Your task to perform on an android device: show emergency info Image 0: 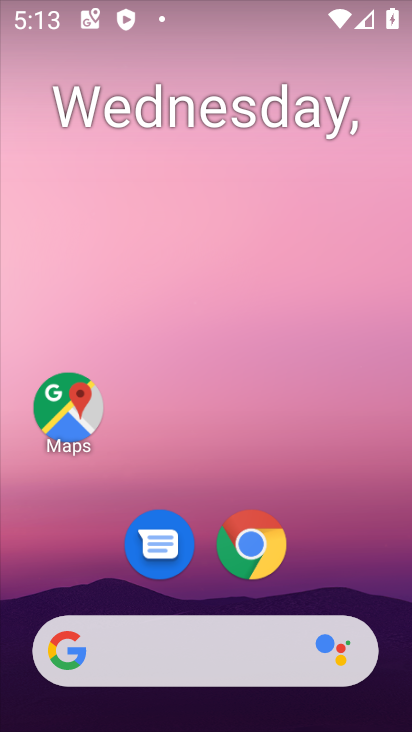
Step 0: drag from (382, 695) to (372, 96)
Your task to perform on an android device: show emergency info Image 1: 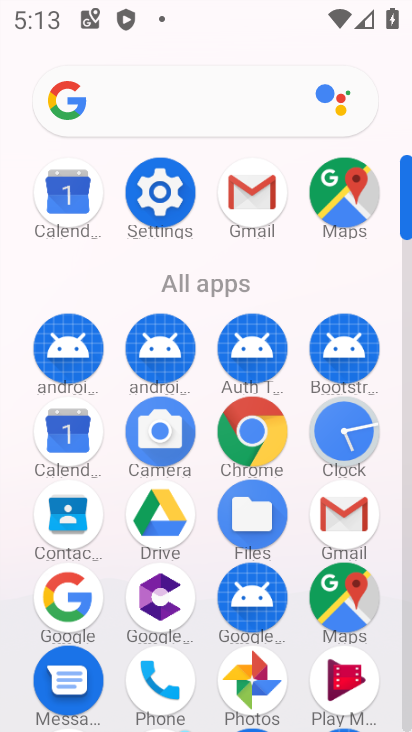
Step 1: click (168, 164)
Your task to perform on an android device: show emergency info Image 2: 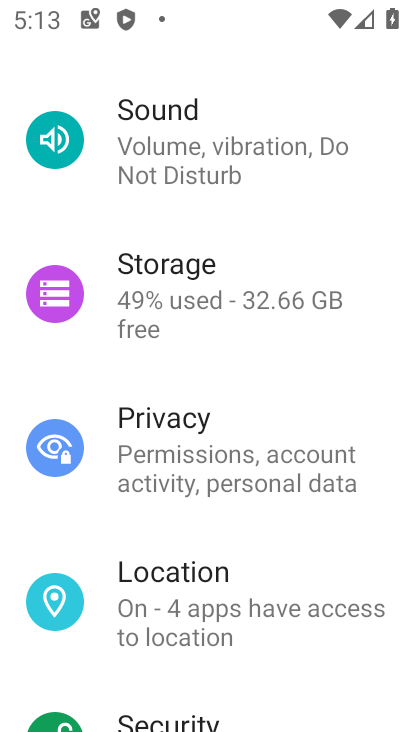
Step 2: drag from (360, 447) to (346, 174)
Your task to perform on an android device: show emergency info Image 3: 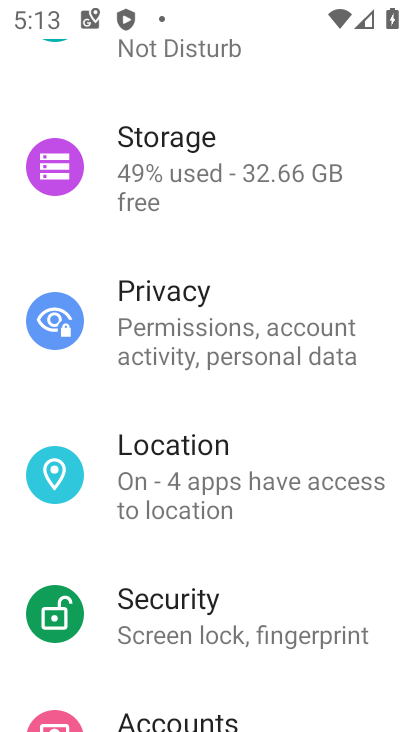
Step 3: drag from (288, 453) to (285, 294)
Your task to perform on an android device: show emergency info Image 4: 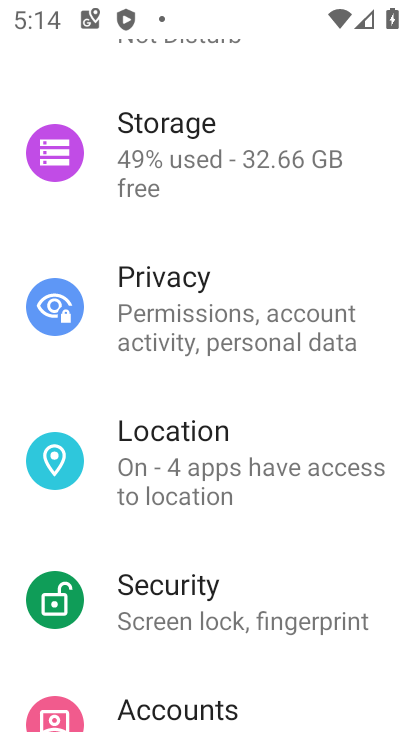
Step 4: drag from (338, 664) to (287, 176)
Your task to perform on an android device: show emergency info Image 5: 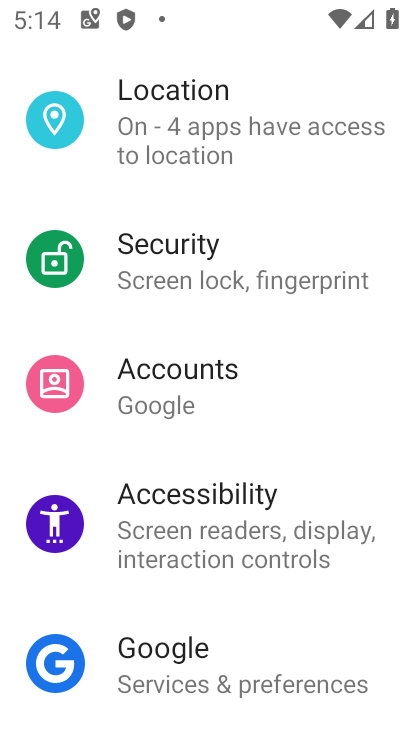
Step 5: drag from (321, 645) to (349, 158)
Your task to perform on an android device: show emergency info Image 6: 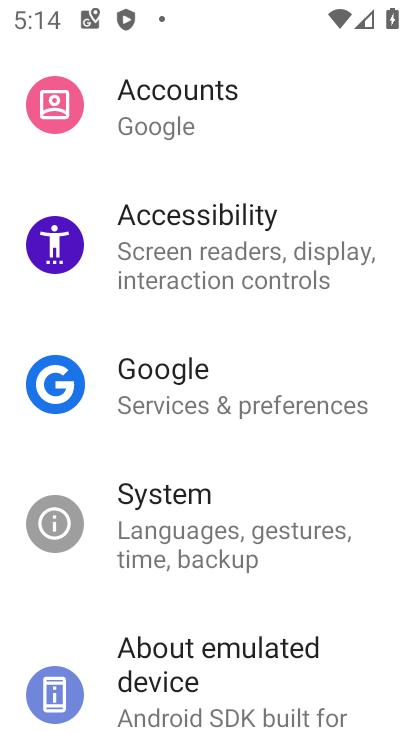
Step 6: click (236, 672)
Your task to perform on an android device: show emergency info Image 7: 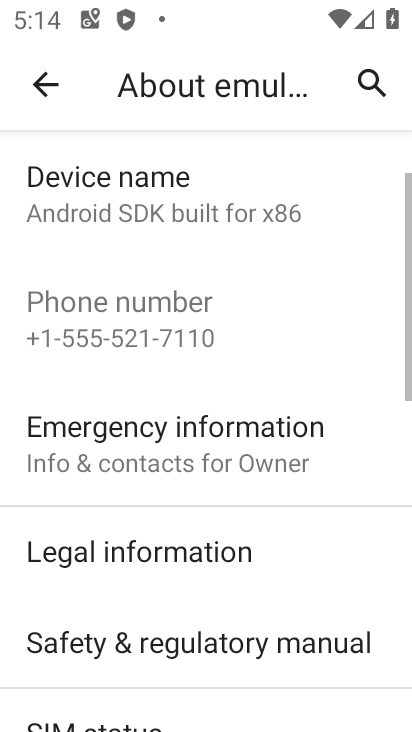
Step 7: task complete